Your task to perform on an android device: Show me popular games on the Play Store Image 0: 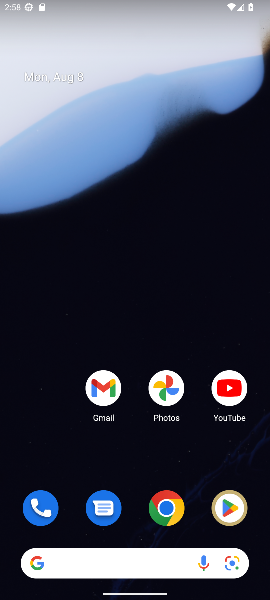
Step 0: click (232, 510)
Your task to perform on an android device: Show me popular games on the Play Store Image 1: 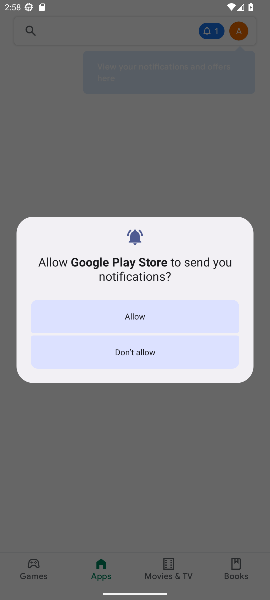
Step 1: click (136, 316)
Your task to perform on an android device: Show me popular games on the Play Store Image 2: 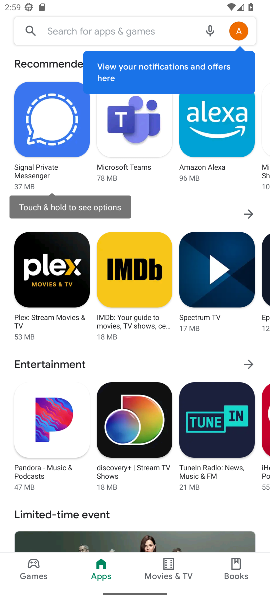
Step 2: click (34, 568)
Your task to perform on an android device: Show me popular games on the Play Store Image 3: 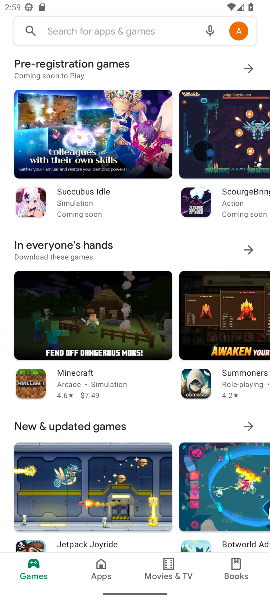
Step 3: task complete